Your task to perform on an android device: Go to Google maps Image 0: 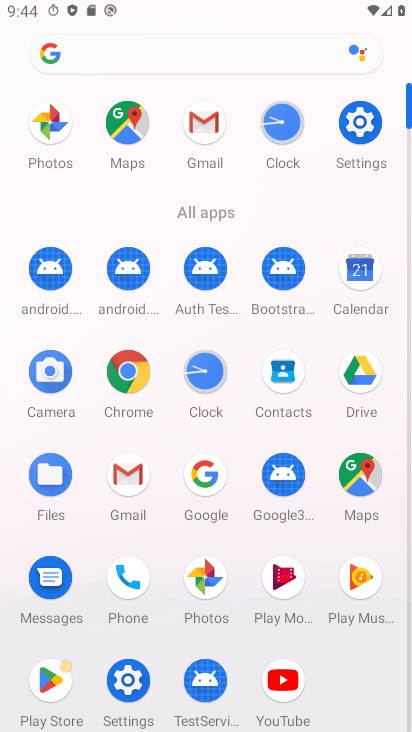
Step 0: click (380, 474)
Your task to perform on an android device: Go to Google maps Image 1: 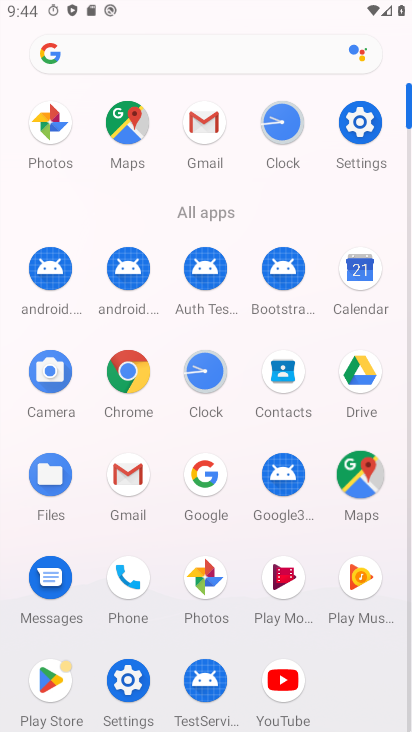
Step 1: click (371, 467)
Your task to perform on an android device: Go to Google maps Image 2: 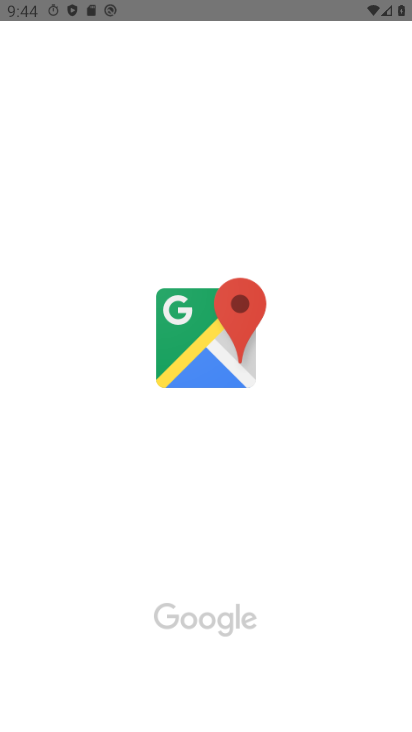
Step 2: click (371, 467)
Your task to perform on an android device: Go to Google maps Image 3: 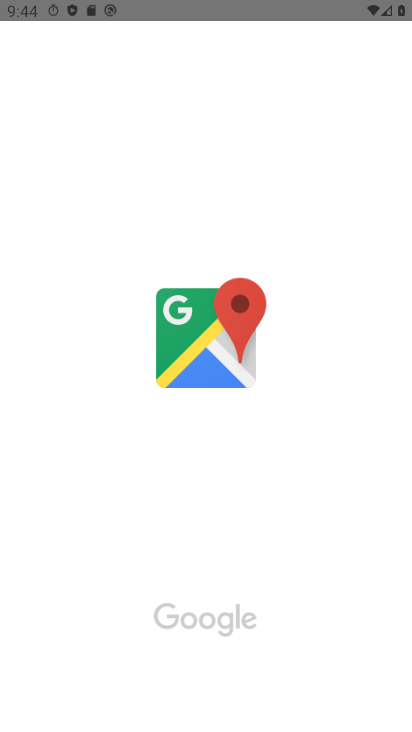
Step 3: click (370, 467)
Your task to perform on an android device: Go to Google maps Image 4: 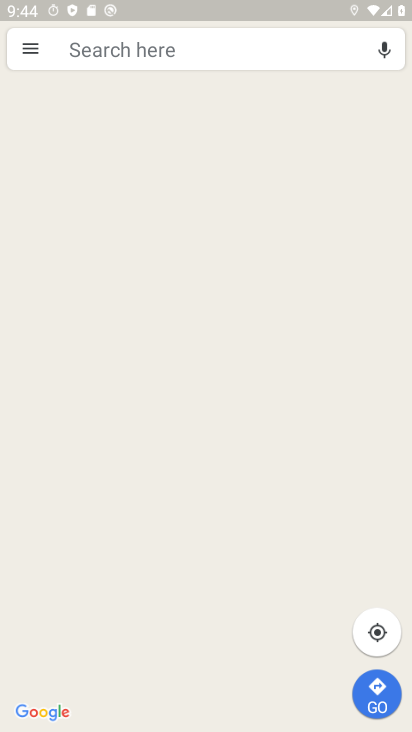
Step 4: click (206, 338)
Your task to perform on an android device: Go to Google maps Image 5: 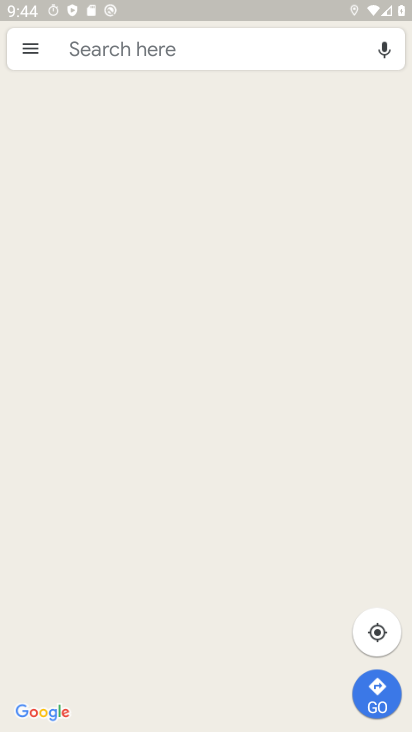
Step 5: click (205, 338)
Your task to perform on an android device: Go to Google maps Image 6: 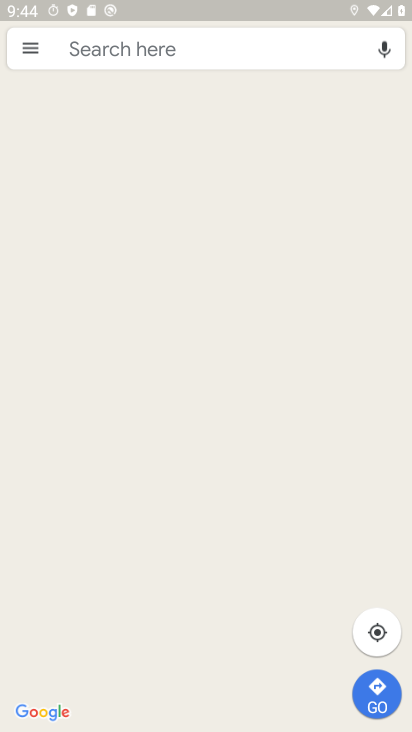
Step 6: click (205, 338)
Your task to perform on an android device: Go to Google maps Image 7: 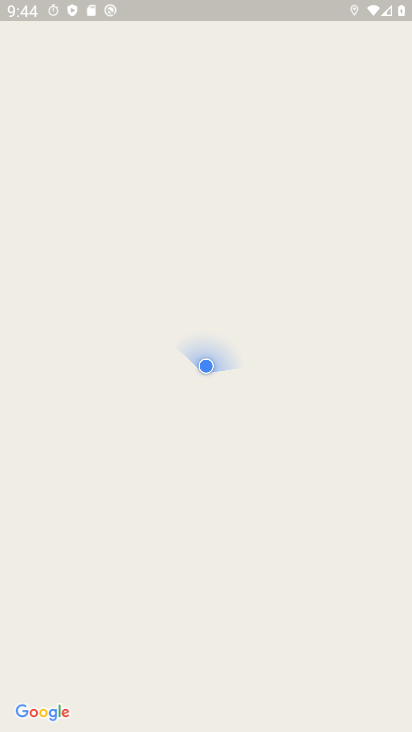
Step 7: task complete